Your task to perform on an android device: Go to internet settings Image 0: 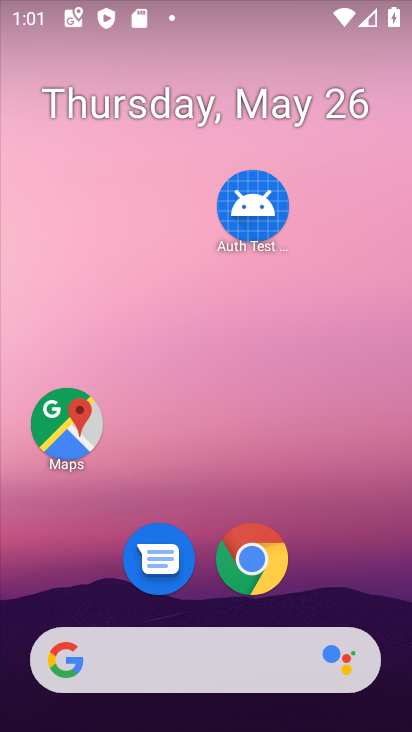
Step 0: drag from (359, 526) to (310, 13)
Your task to perform on an android device: Go to internet settings Image 1: 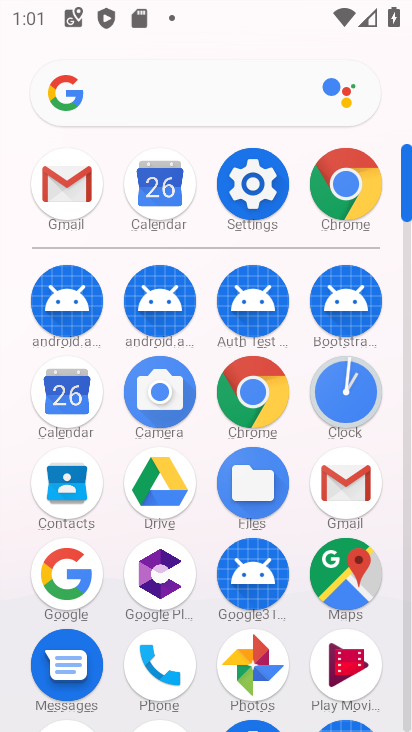
Step 1: click (254, 180)
Your task to perform on an android device: Go to internet settings Image 2: 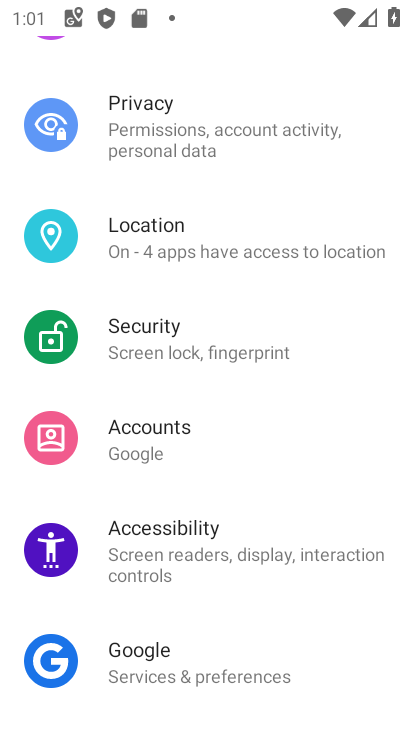
Step 2: drag from (169, 119) to (181, 604)
Your task to perform on an android device: Go to internet settings Image 3: 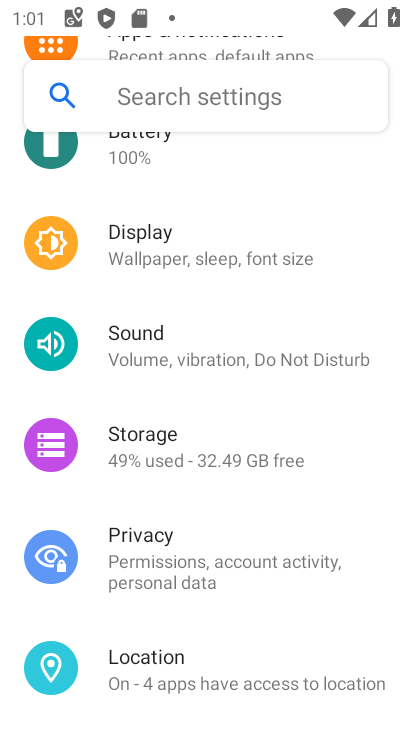
Step 3: drag from (155, 143) to (157, 614)
Your task to perform on an android device: Go to internet settings Image 4: 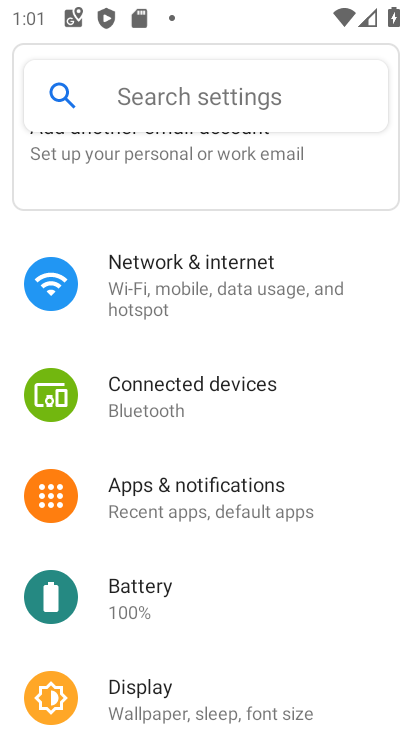
Step 4: click (173, 283)
Your task to perform on an android device: Go to internet settings Image 5: 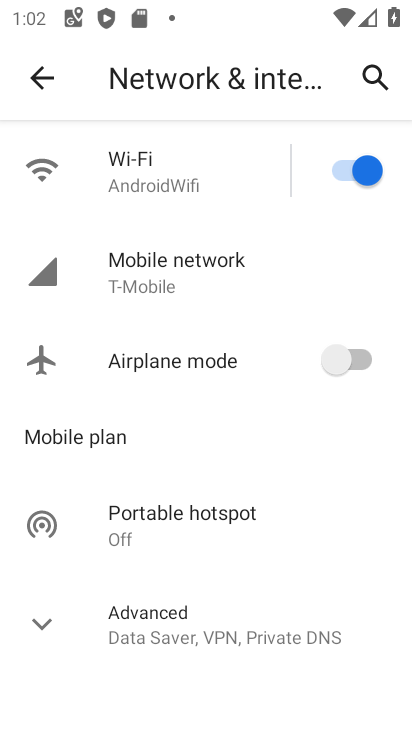
Step 5: task complete